Your task to perform on an android device: Go to display settings Image 0: 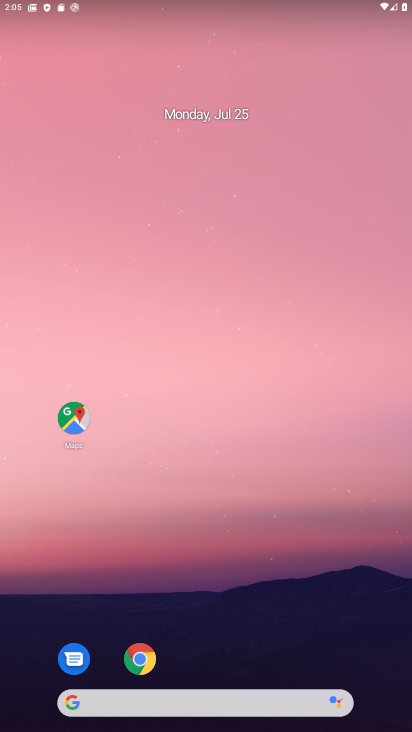
Step 0: drag from (251, 690) to (272, 145)
Your task to perform on an android device: Go to display settings Image 1: 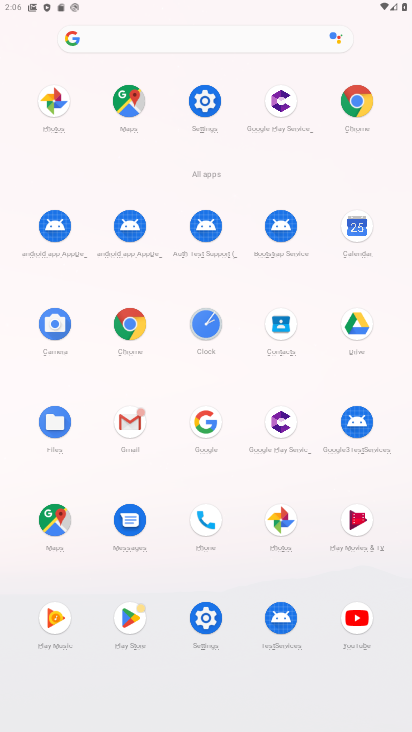
Step 1: click (200, 103)
Your task to perform on an android device: Go to display settings Image 2: 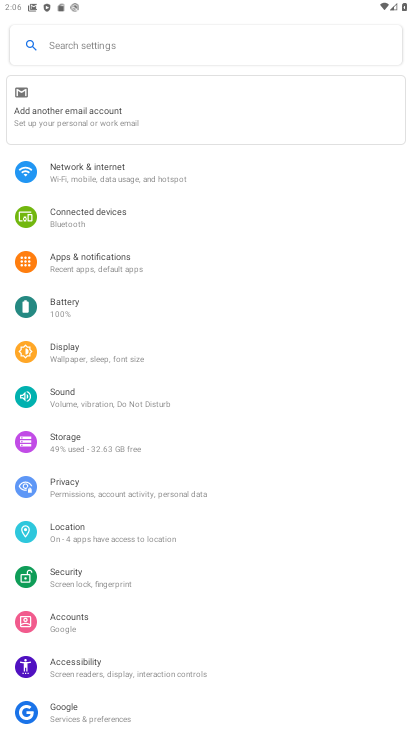
Step 2: click (93, 357)
Your task to perform on an android device: Go to display settings Image 3: 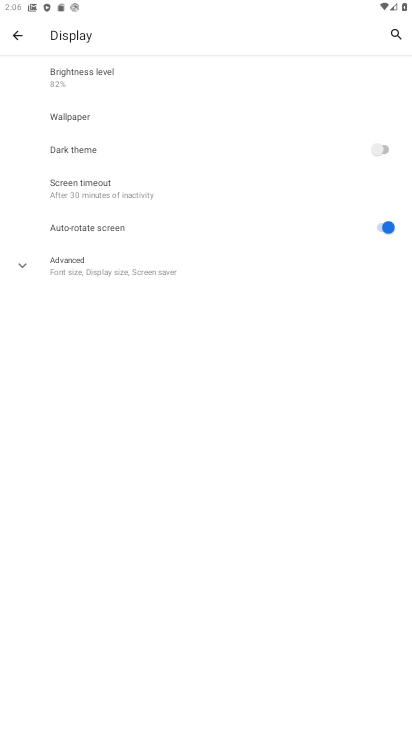
Step 3: click (83, 269)
Your task to perform on an android device: Go to display settings Image 4: 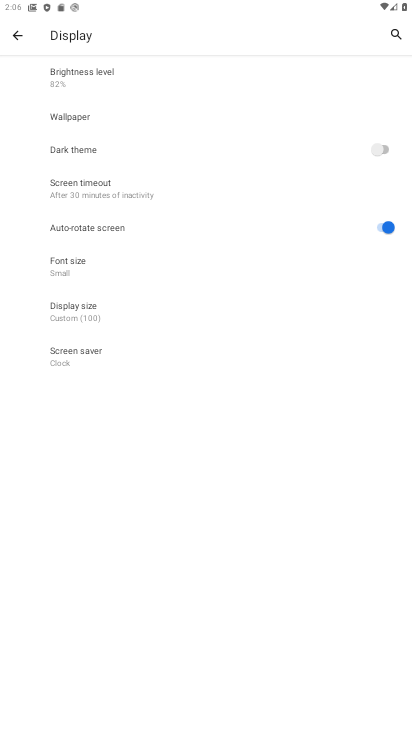
Step 4: task complete